Your task to perform on an android device: Open Amazon Image 0: 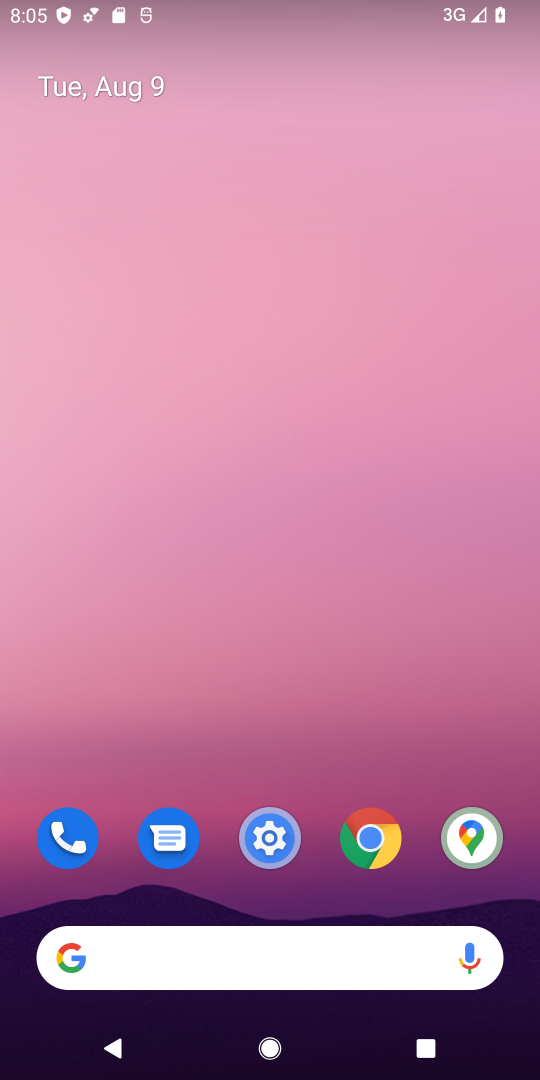
Step 0: click (396, 856)
Your task to perform on an android device: Open Amazon Image 1: 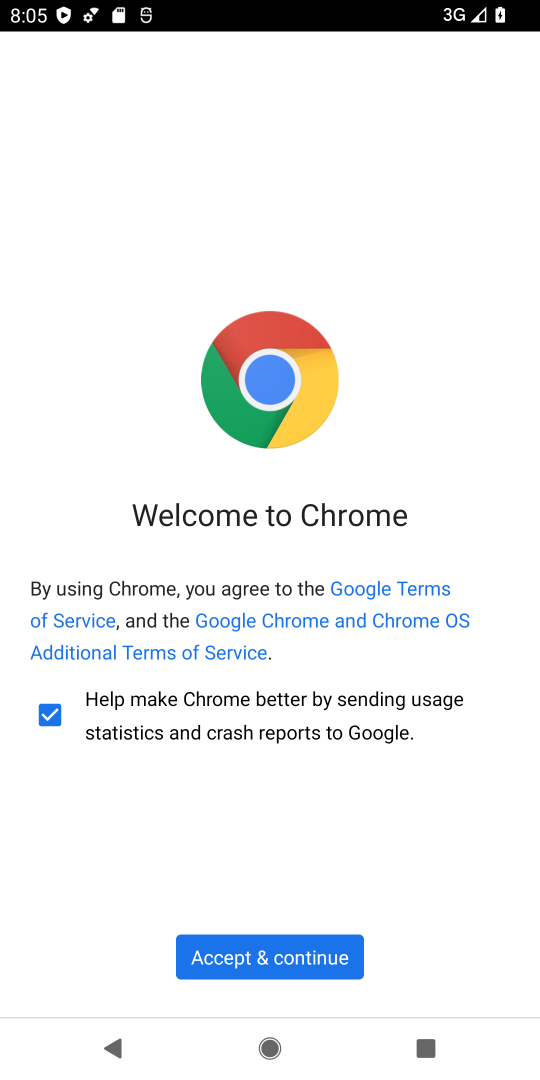
Step 1: click (277, 960)
Your task to perform on an android device: Open Amazon Image 2: 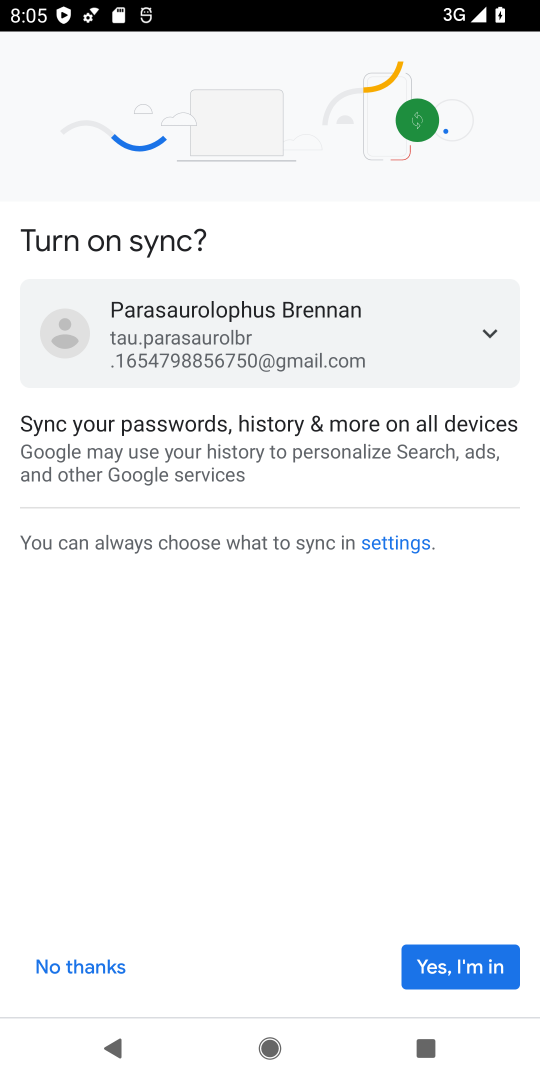
Step 2: click (463, 968)
Your task to perform on an android device: Open Amazon Image 3: 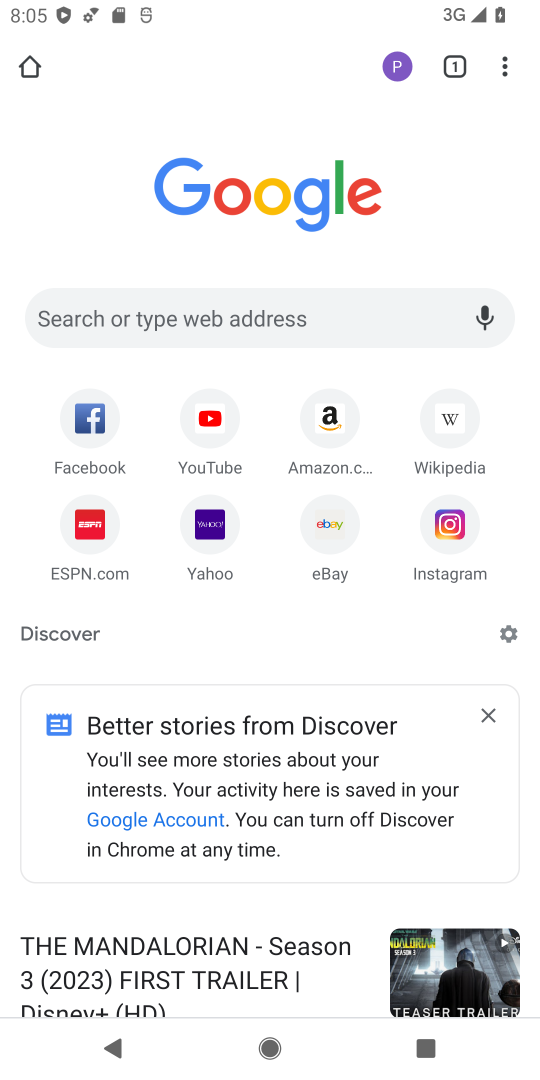
Step 3: click (342, 428)
Your task to perform on an android device: Open Amazon Image 4: 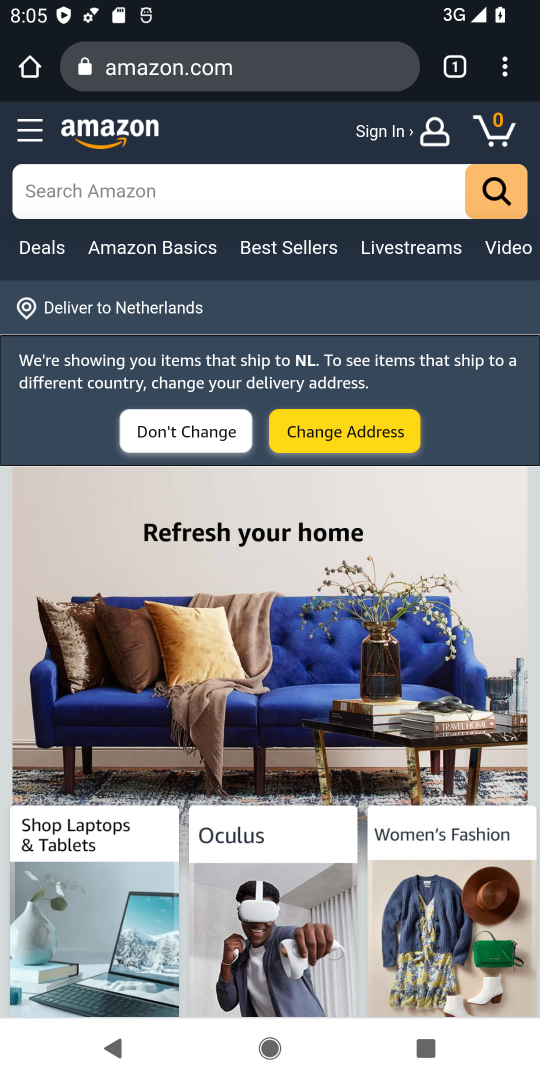
Step 4: task complete